Your task to perform on an android device: choose inbox layout in the gmail app Image 0: 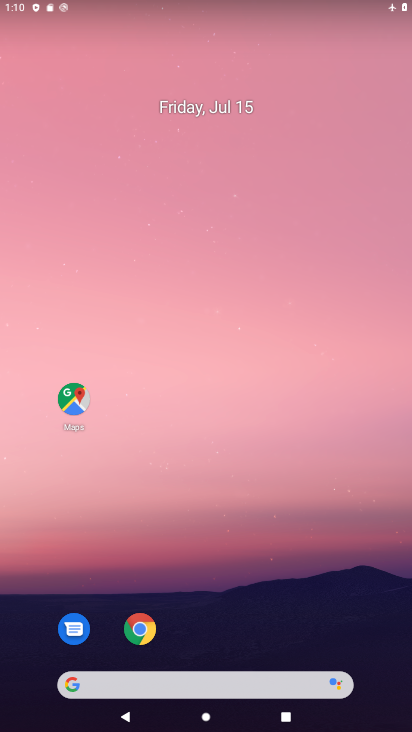
Step 0: press home button
Your task to perform on an android device: choose inbox layout in the gmail app Image 1: 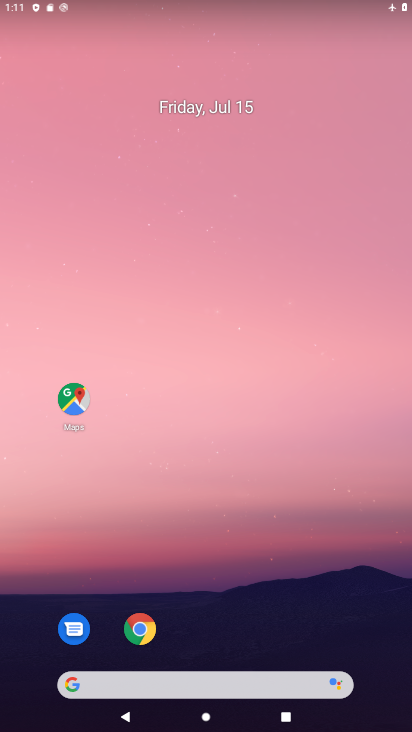
Step 1: drag from (292, 586) to (286, 63)
Your task to perform on an android device: choose inbox layout in the gmail app Image 2: 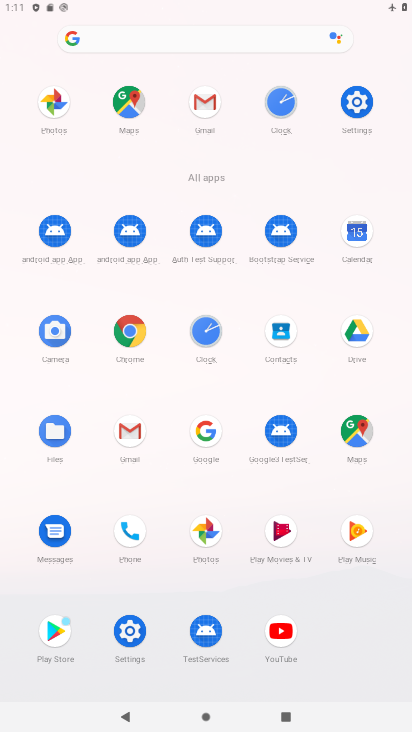
Step 2: click (127, 442)
Your task to perform on an android device: choose inbox layout in the gmail app Image 3: 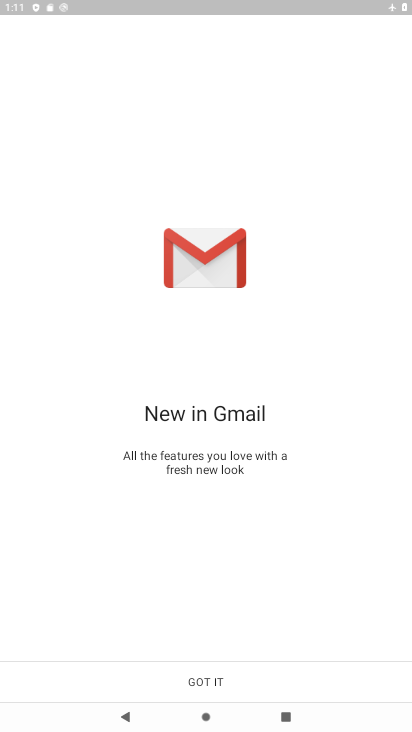
Step 3: click (121, 665)
Your task to perform on an android device: choose inbox layout in the gmail app Image 4: 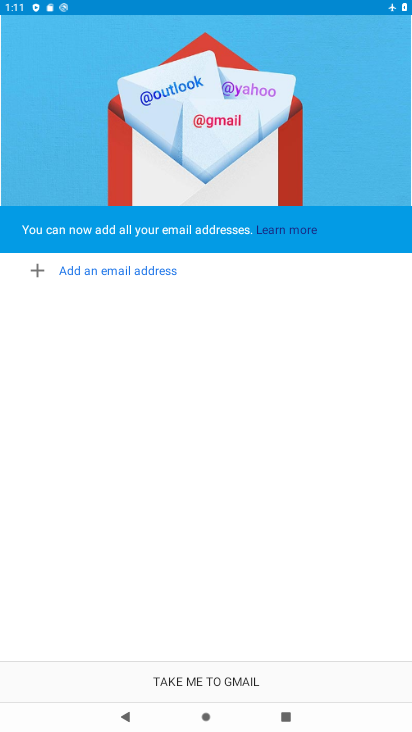
Step 4: click (121, 665)
Your task to perform on an android device: choose inbox layout in the gmail app Image 5: 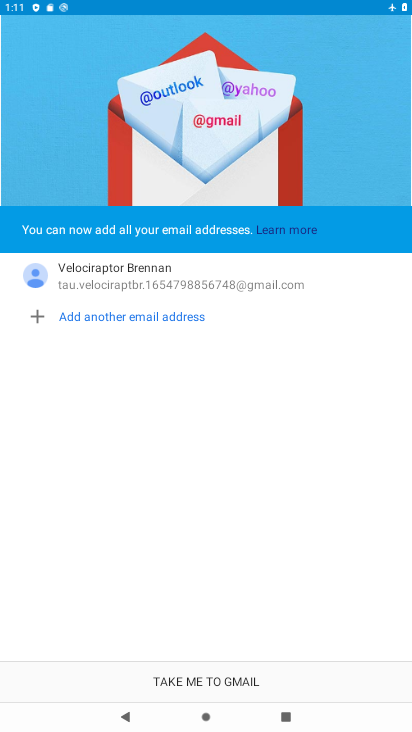
Step 5: click (121, 668)
Your task to perform on an android device: choose inbox layout in the gmail app Image 6: 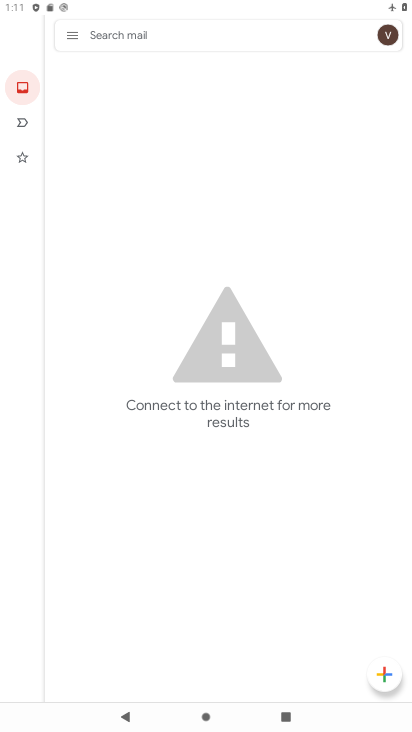
Step 6: click (68, 32)
Your task to perform on an android device: choose inbox layout in the gmail app Image 7: 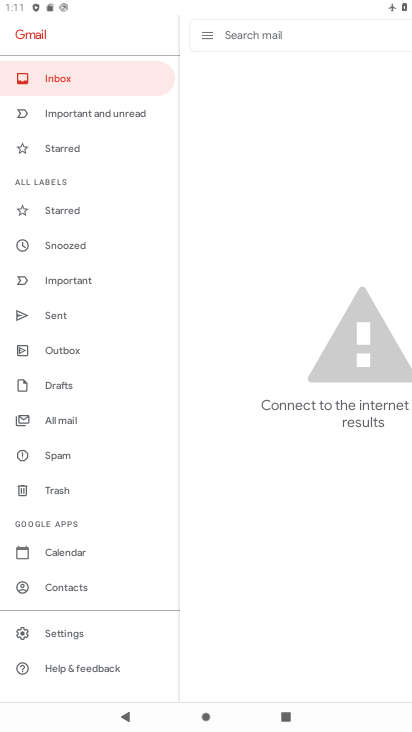
Step 7: click (48, 626)
Your task to perform on an android device: choose inbox layout in the gmail app Image 8: 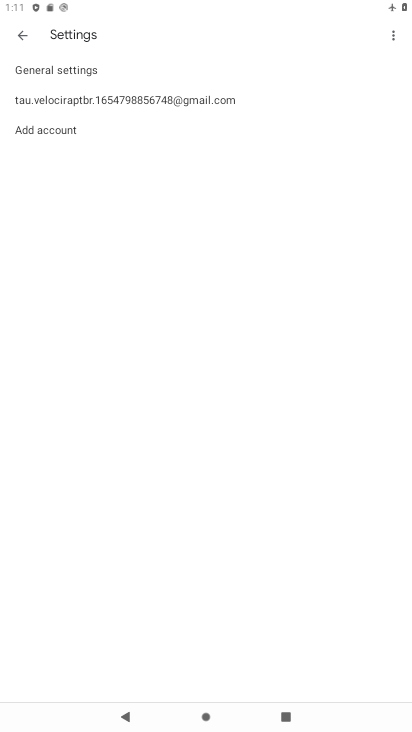
Step 8: click (102, 110)
Your task to perform on an android device: choose inbox layout in the gmail app Image 9: 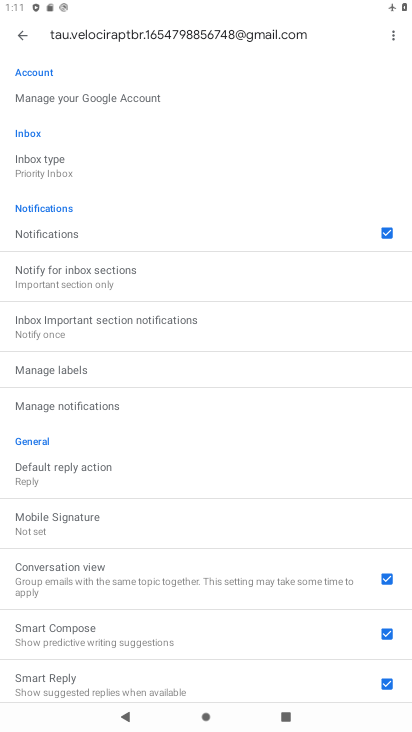
Step 9: click (61, 162)
Your task to perform on an android device: choose inbox layout in the gmail app Image 10: 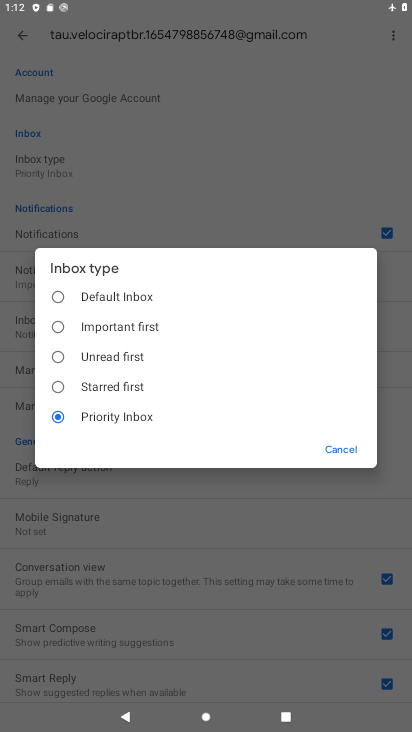
Step 10: click (117, 353)
Your task to perform on an android device: choose inbox layout in the gmail app Image 11: 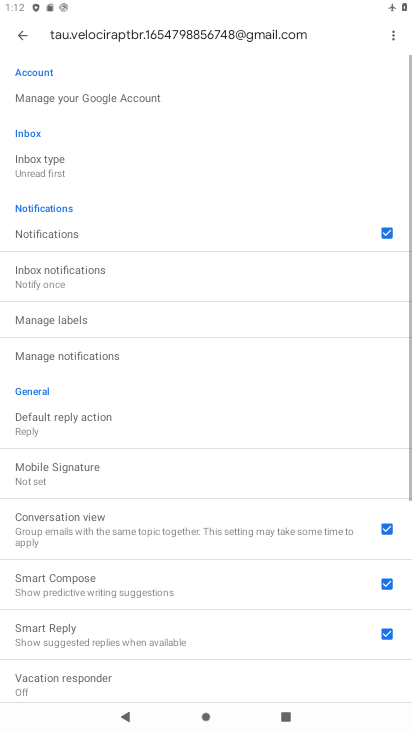
Step 11: task complete